Your task to perform on an android device: Open Android settings Image 0: 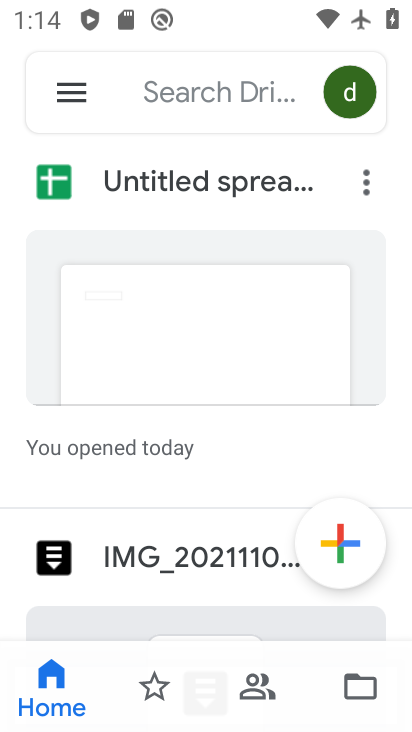
Step 0: press home button
Your task to perform on an android device: Open Android settings Image 1: 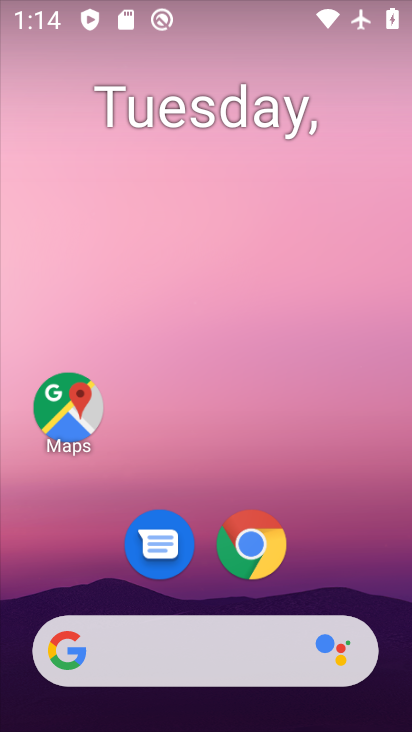
Step 1: drag from (397, 630) to (331, 200)
Your task to perform on an android device: Open Android settings Image 2: 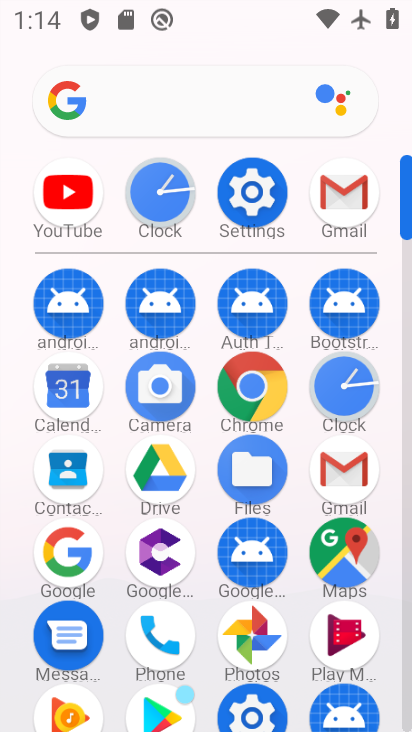
Step 2: click (405, 701)
Your task to perform on an android device: Open Android settings Image 3: 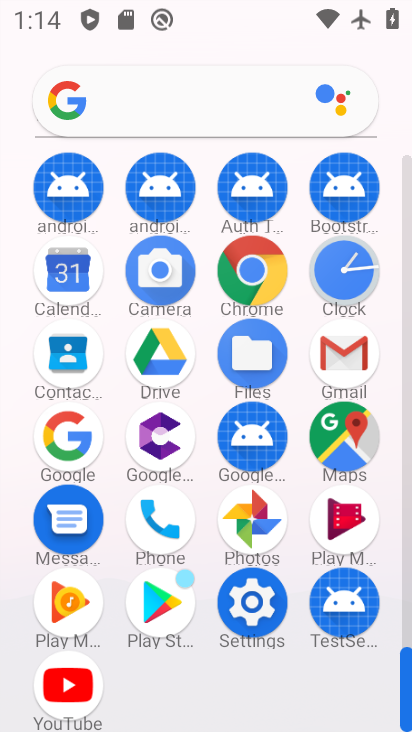
Step 3: click (254, 601)
Your task to perform on an android device: Open Android settings Image 4: 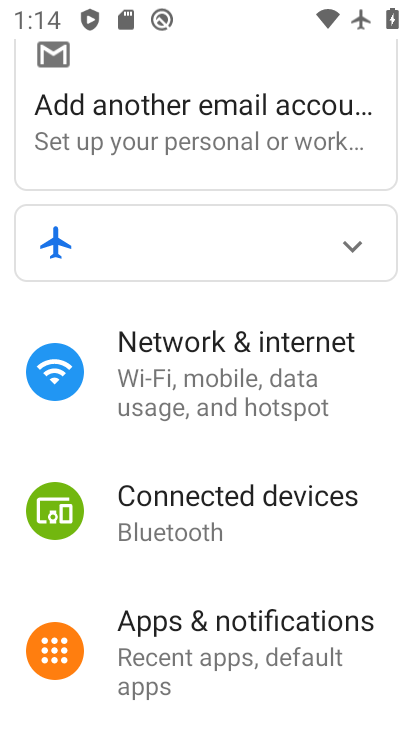
Step 4: drag from (302, 665) to (255, 209)
Your task to perform on an android device: Open Android settings Image 5: 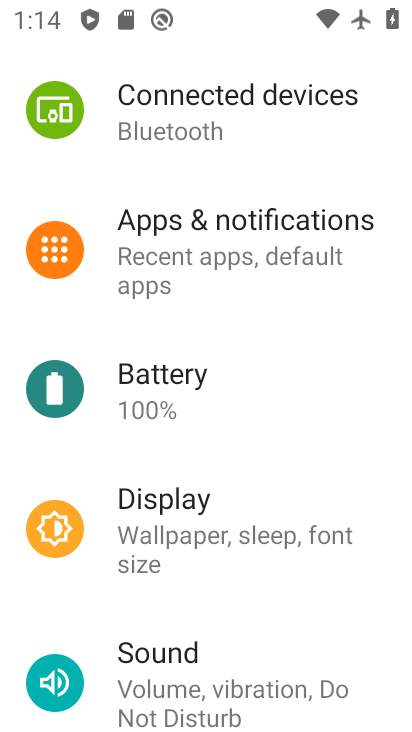
Step 5: drag from (356, 641) to (292, 131)
Your task to perform on an android device: Open Android settings Image 6: 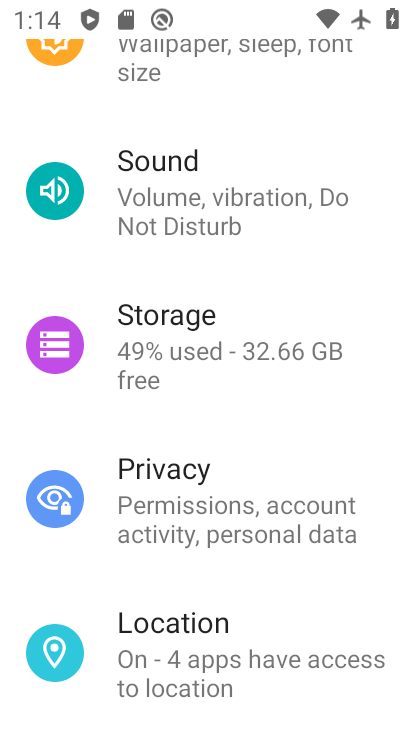
Step 6: drag from (330, 627) to (293, 229)
Your task to perform on an android device: Open Android settings Image 7: 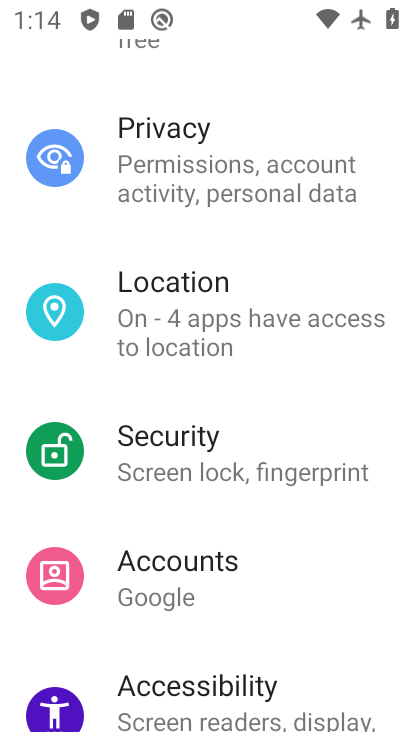
Step 7: drag from (338, 643) to (288, 202)
Your task to perform on an android device: Open Android settings Image 8: 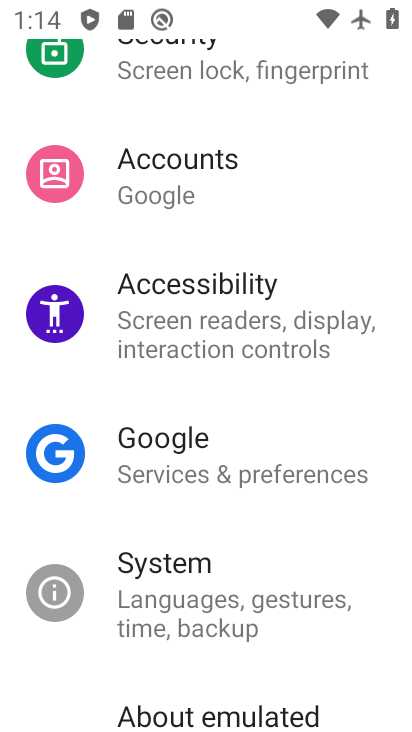
Step 8: drag from (336, 660) to (299, 238)
Your task to perform on an android device: Open Android settings Image 9: 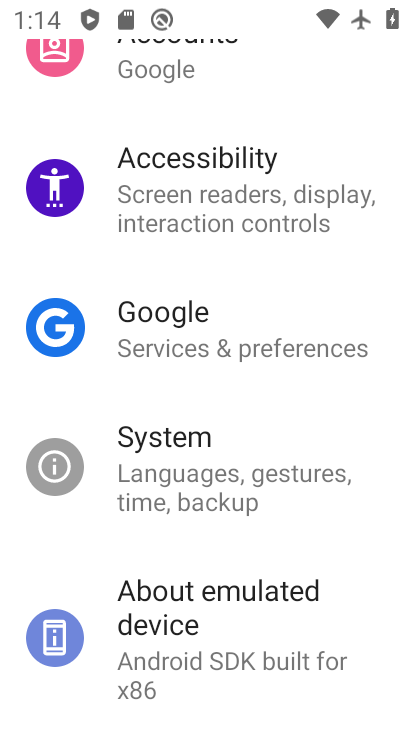
Step 9: click (179, 656)
Your task to perform on an android device: Open Android settings Image 10: 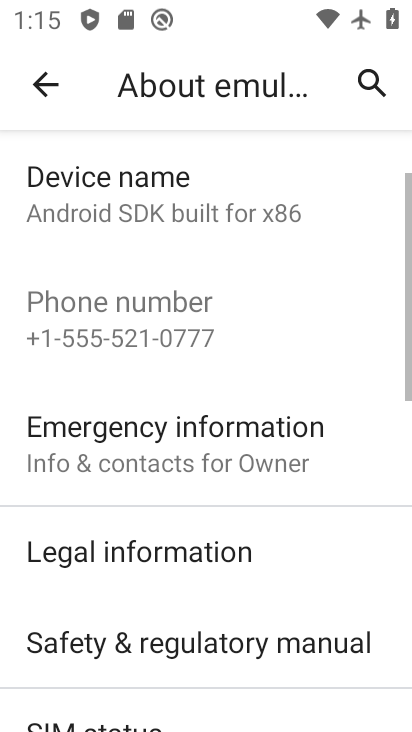
Step 10: task complete